Your task to perform on an android device: open app "ZOOM Cloud Meetings" (install if not already installed), go to login, and select forgot password Image 0: 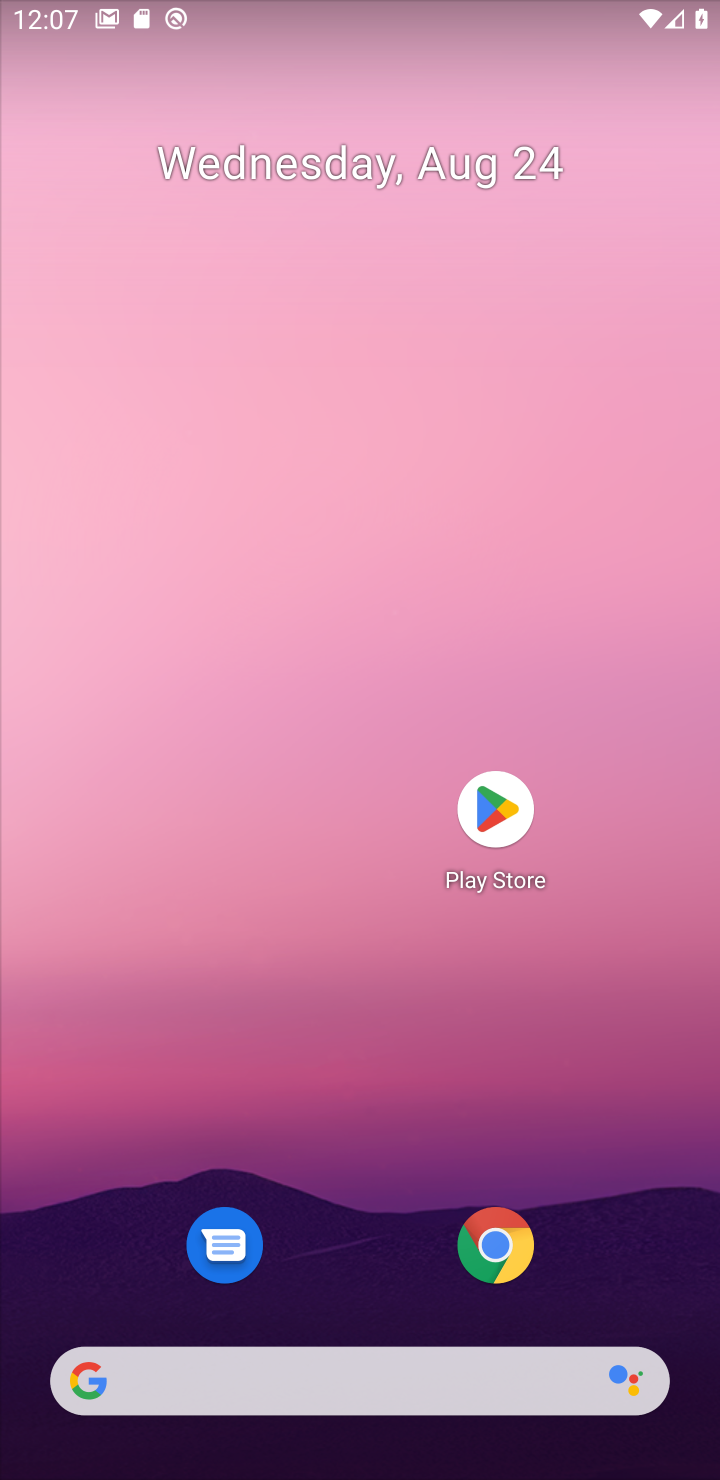
Step 0: click (504, 800)
Your task to perform on an android device: open app "ZOOM Cloud Meetings" (install if not already installed), go to login, and select forgot password Image 1: 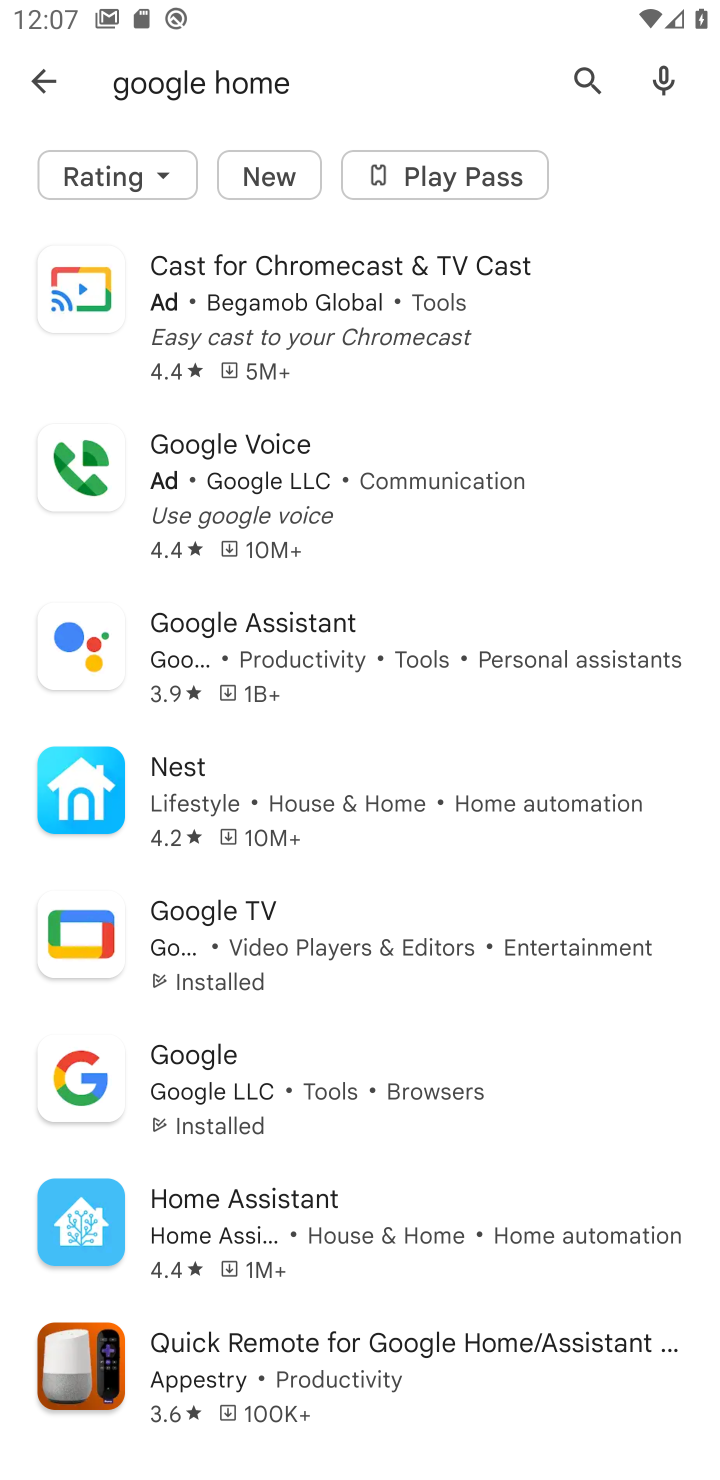
Step 1: click (583, 64)
Your task to perform on an android device: open app "ZOOM Cloud Meetings" (install if not already installed), go to login, and select forgot password Image 2: 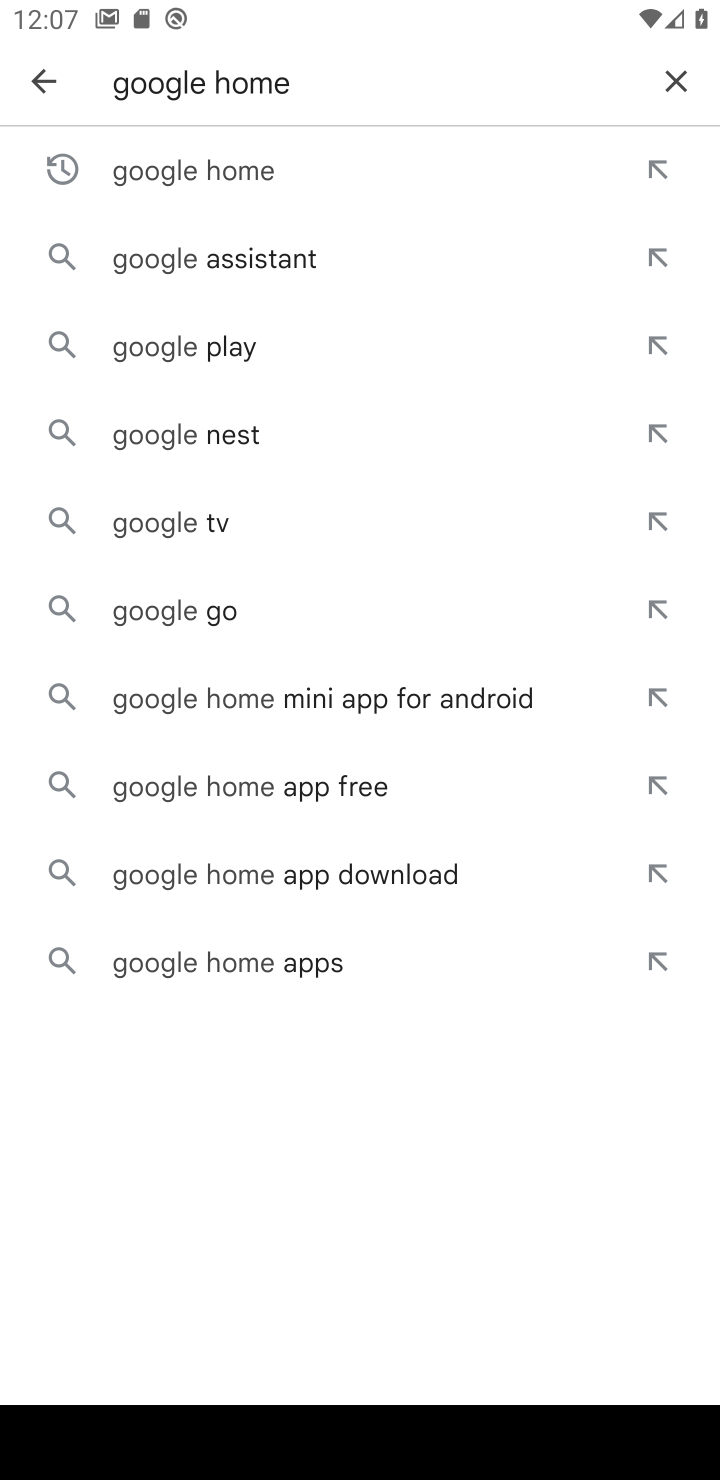
Step 2: click (666, 72)
Your task to perform on an android device: open app "ZOOM Cloud Meetings" (install if not already installed), go to login, and select forgot password Image 3: 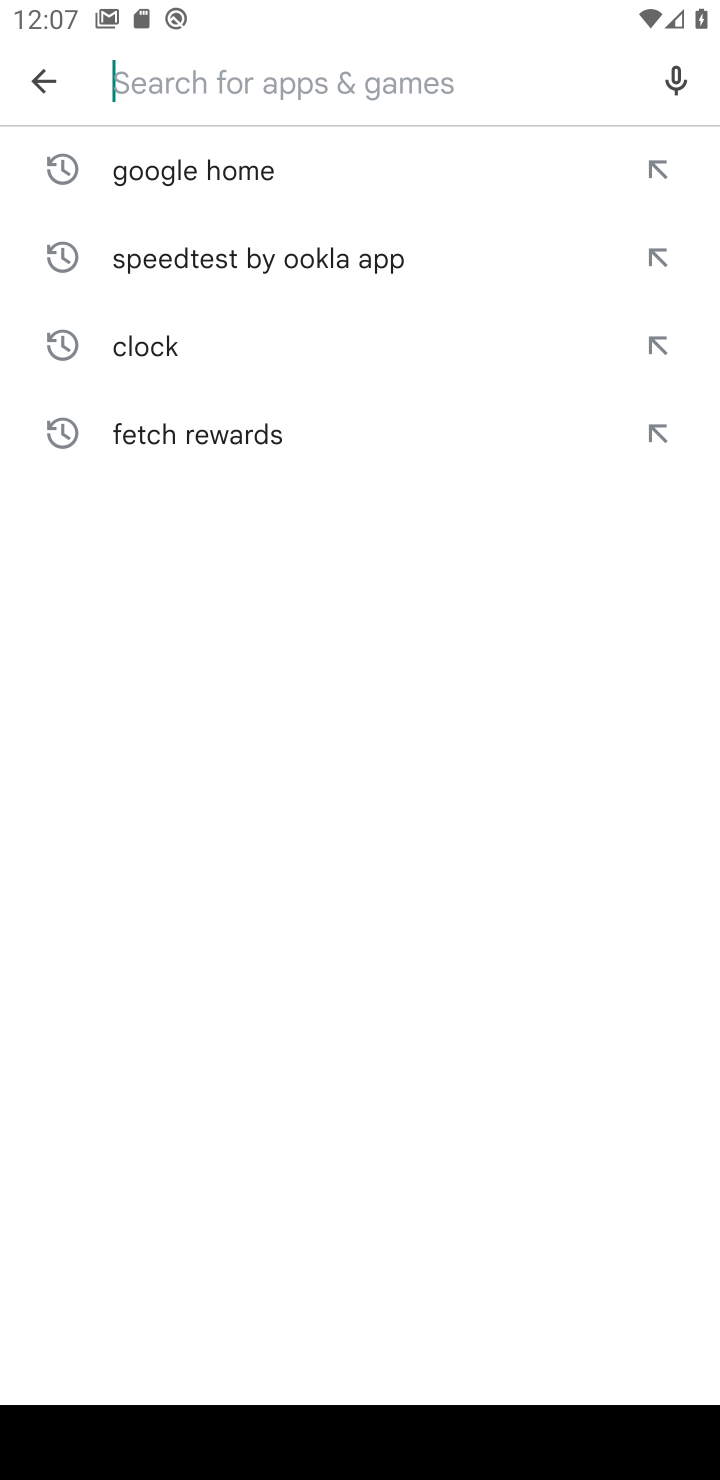
Step 3: type "ZOOM Cloud Meetings"
Your task to perform on an android device: open app "ZOOM Cloud Meetings" (install if not already installed), go to login, and select forgot password Image 4: 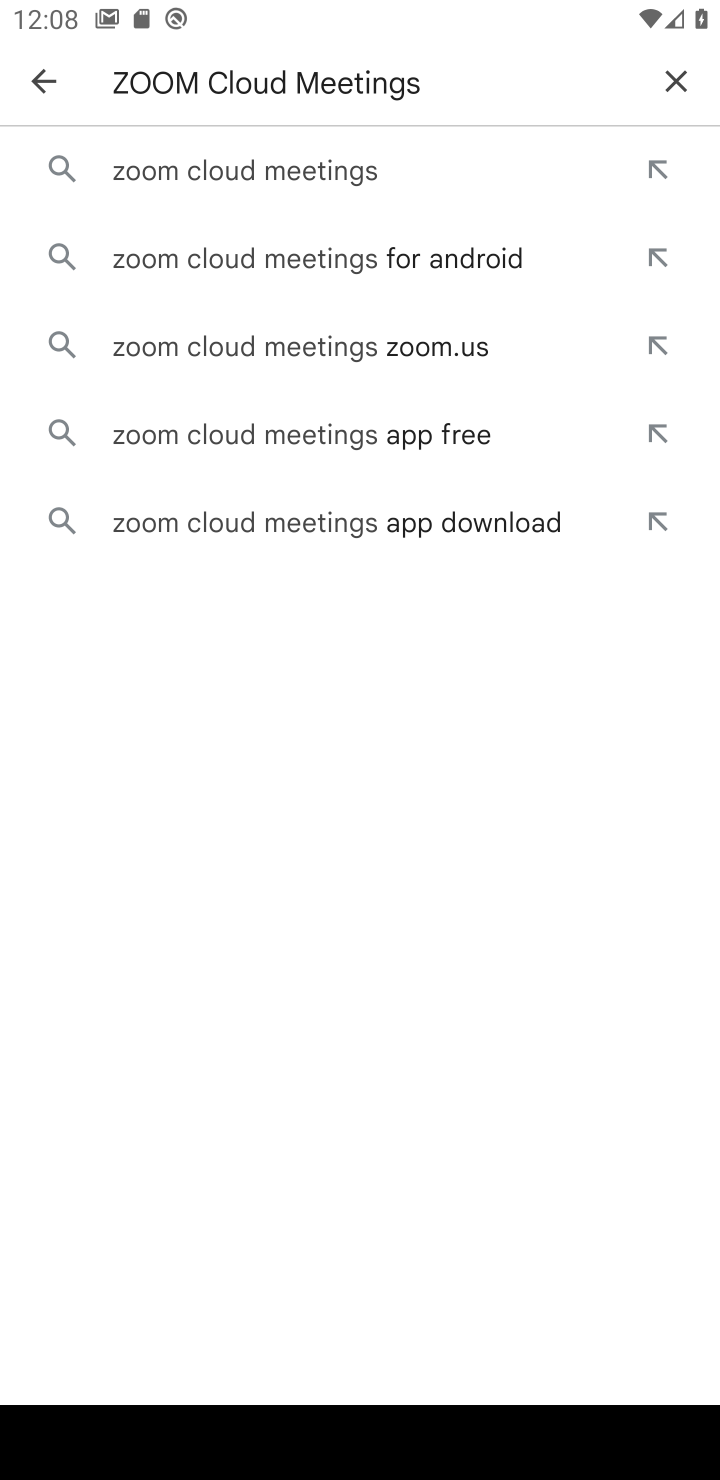
Step 4: click (282, 171)
Your task to perform on an android device: open app "ZOOM Cloud Meetings" (install if not already installed), go to login, and select forgot password Image 5: 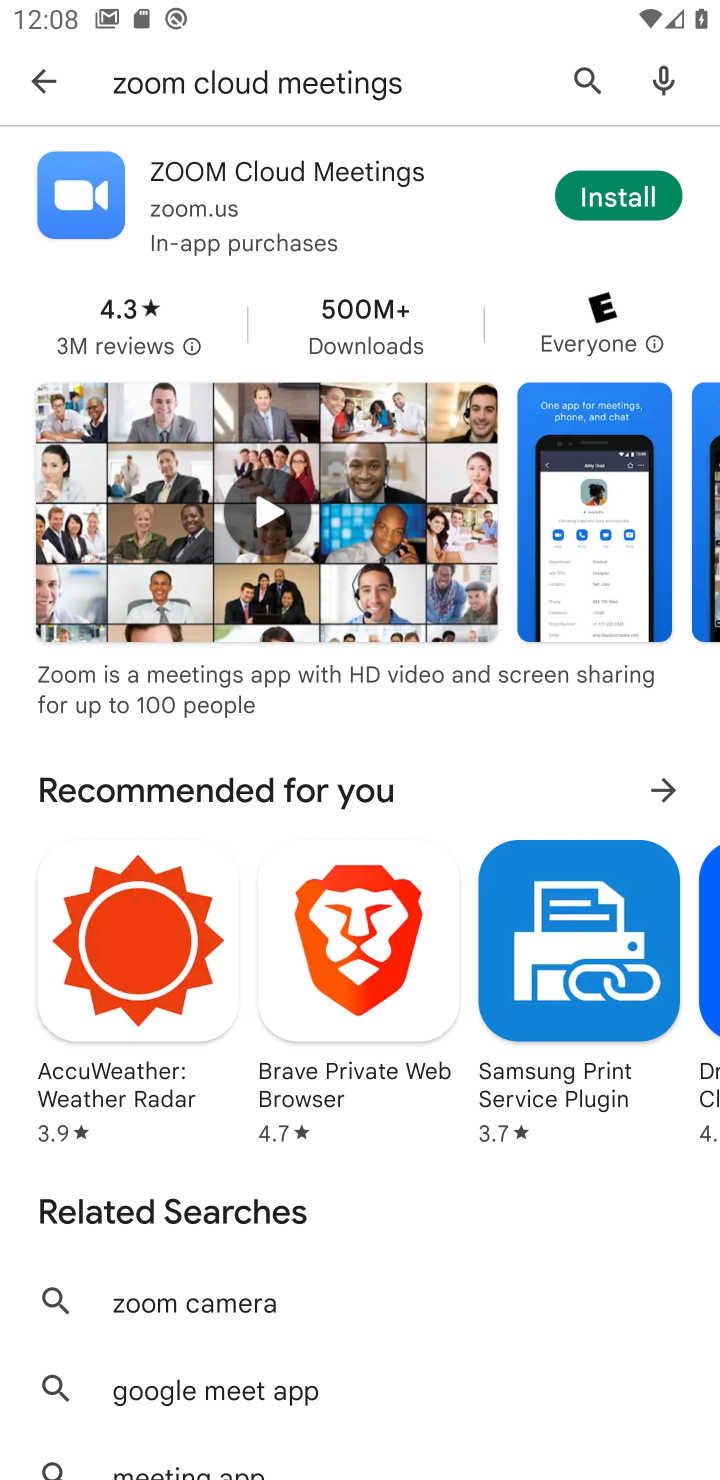
Step 5: click (614, 201)
Your task to perform on an android device: open app "ZOOM Cloud Meetings" (install if not already installed), go to login, and select forgot password Image 6: 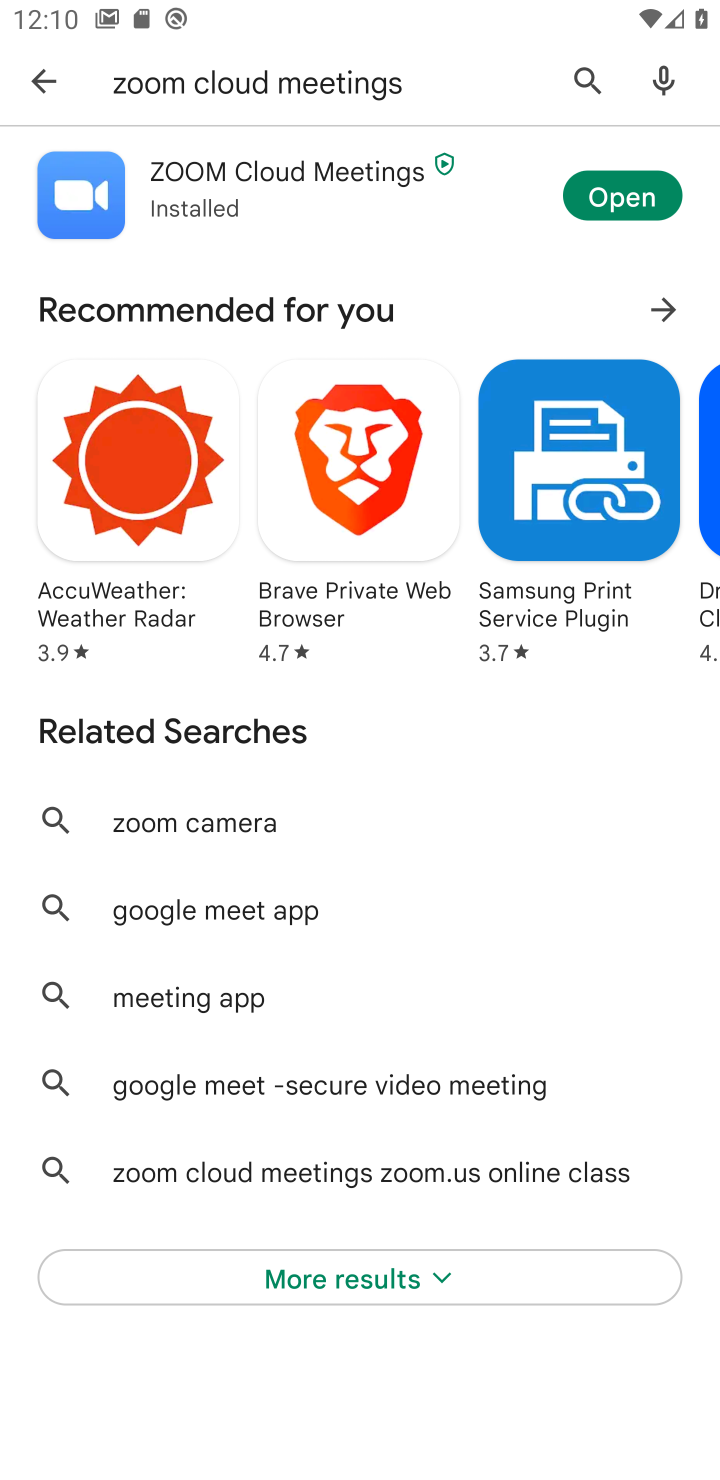
Step 6: click (624, 181)
Your task to perform on an android device: open app "ZOOM Cloud Meetings" (install if not already installed), go to login, and select forgot password Image 7: 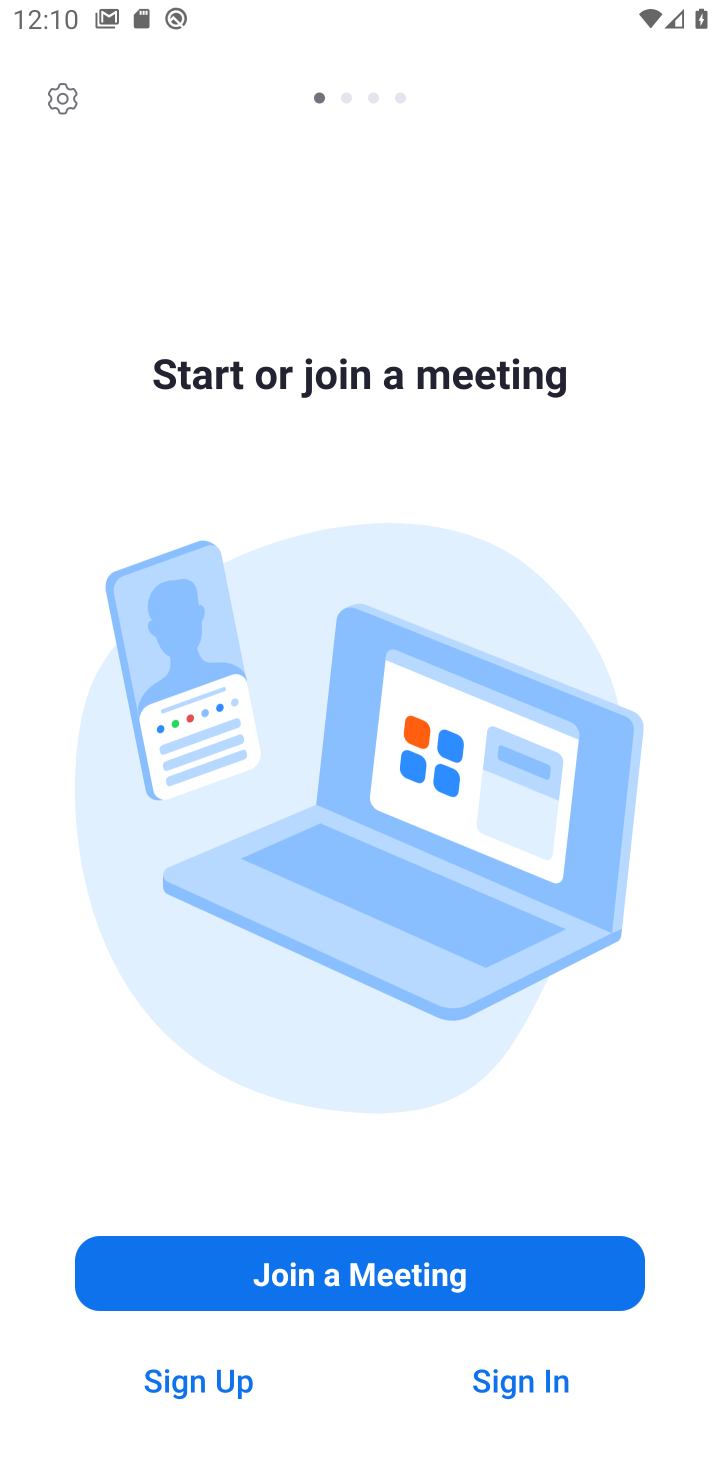
Step 7: click (538, 1394)
Your task to perform on an android device: open app "ZOOM Cloud Meetings" (install if not already installed), go to login, and select forgot password Image 8: 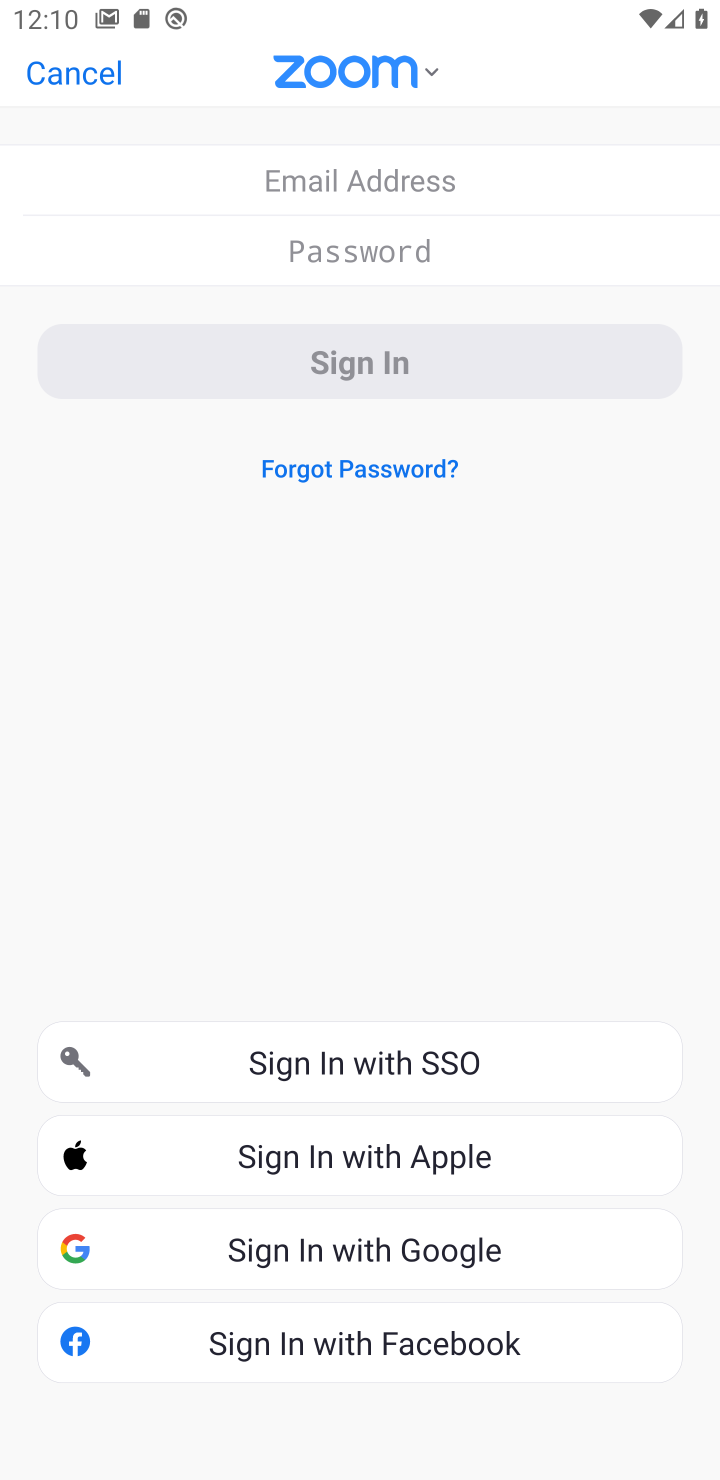
Step 8: click (399, 455)
Your task to perform on an android device: open app "ZOOM Cloud Meetings" (install if not already installed), go to login, and select forgot password Image 9: 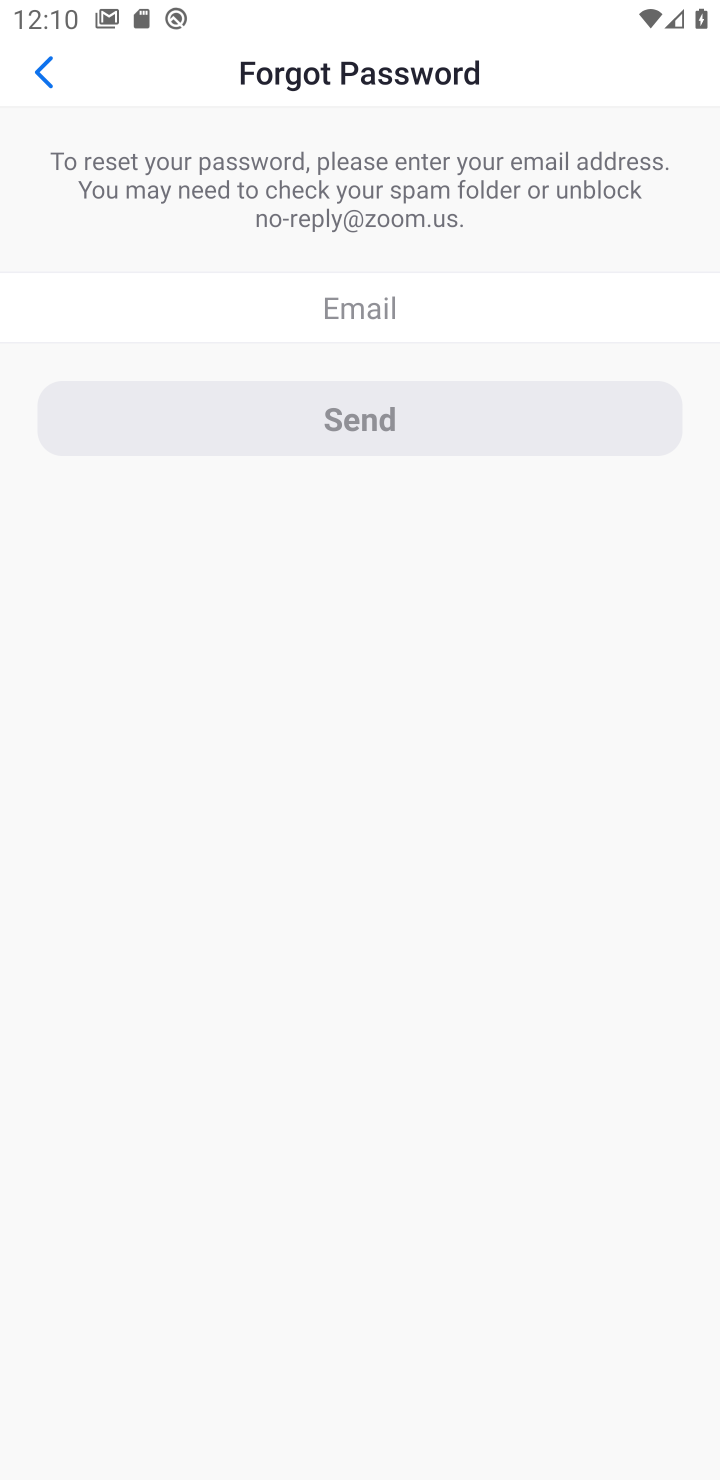
Step 9: task complete